Your task to perform on an android device: read, delete, or share a saved page in the chrome app Image 0: 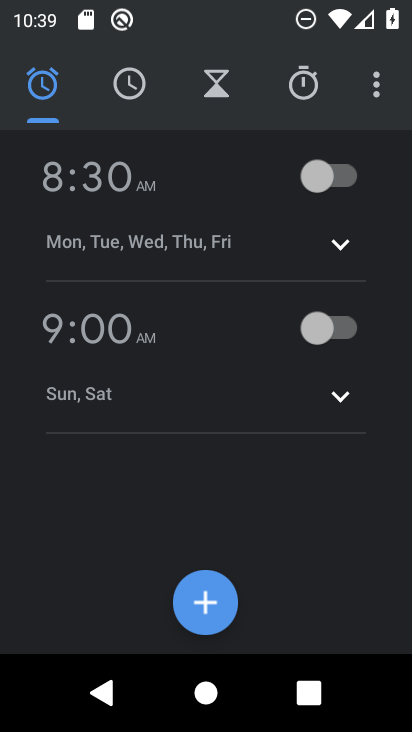
Step 0: press back button
Your task to perform on an android device: read, delete, or share a saved page in the chrome app Image 1: 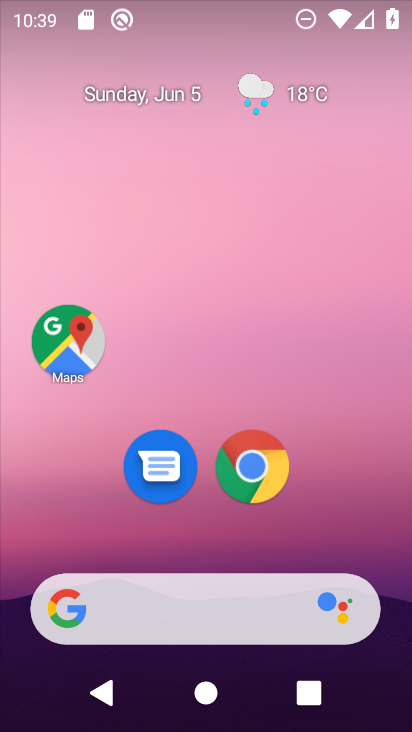
Step 1: click (250, 464)
Your task to perform on an android device: read, delete, or share a saved page in the chrome app Image 2: 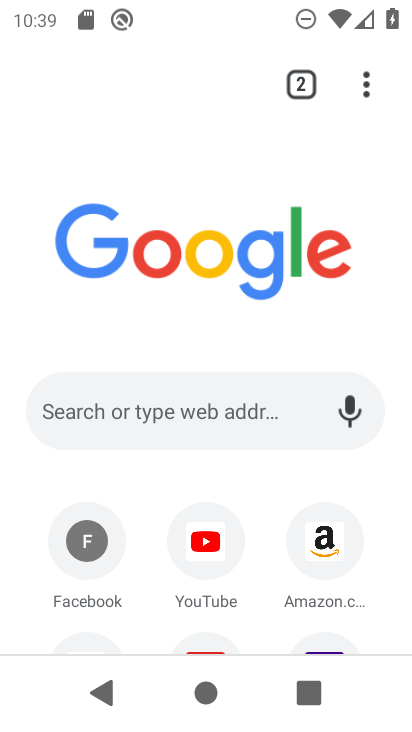
Step 2: task complete